Your task to perform on an android device: turn on airplane mode Image 0: 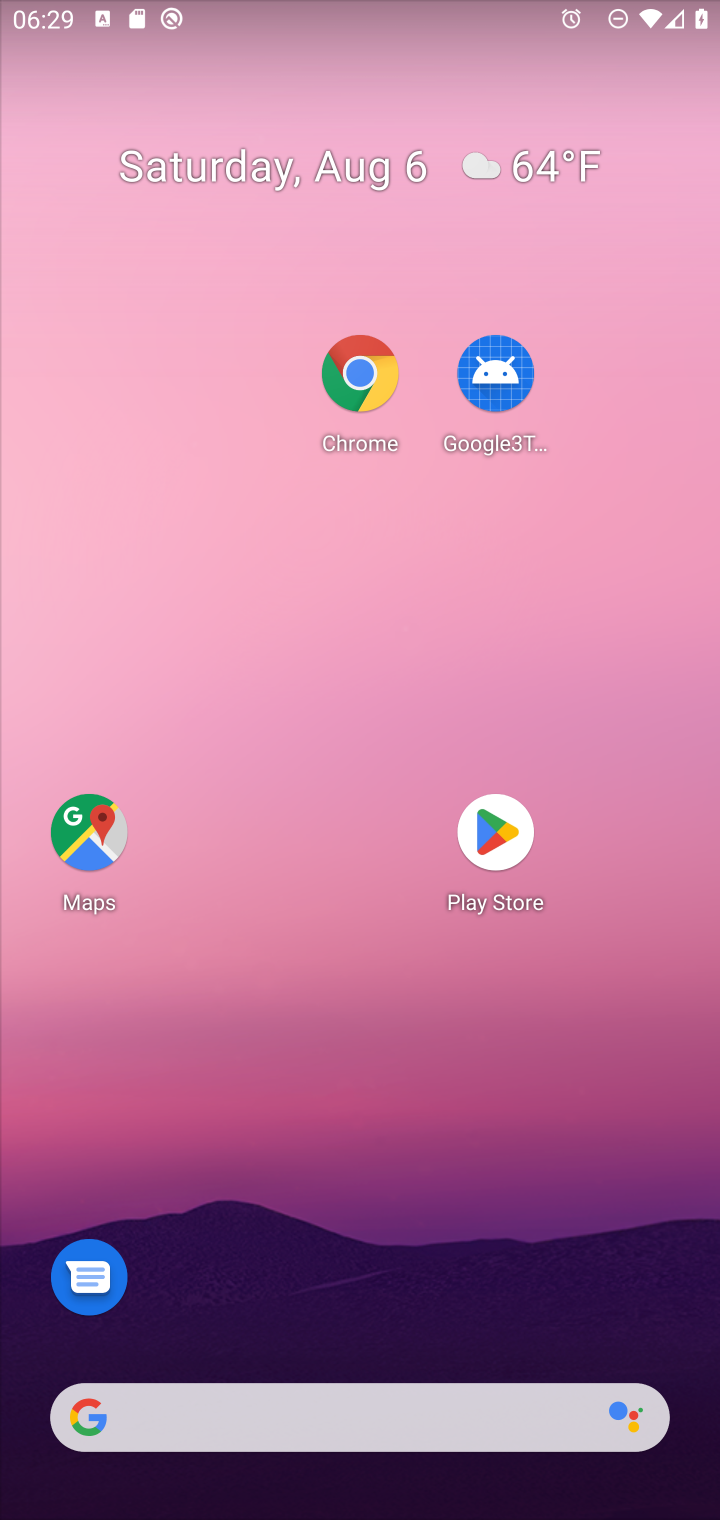
Step 0: press home button
Your task to perform on an android device: turn on airplane mode Image 1: 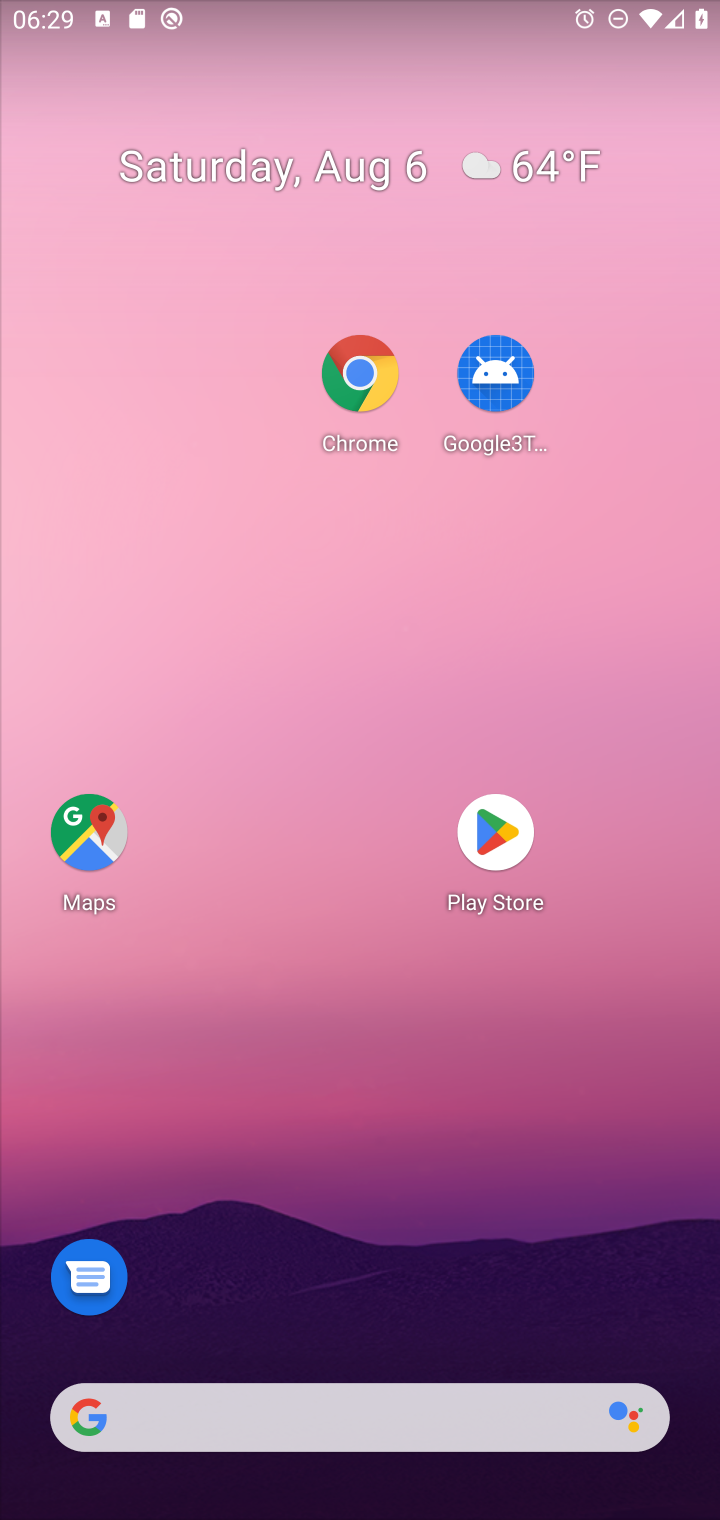
Step 1: drag from (471, 9) to (455, 1021)
Your task to perform on an android device: turn on airplane mode Image 2: 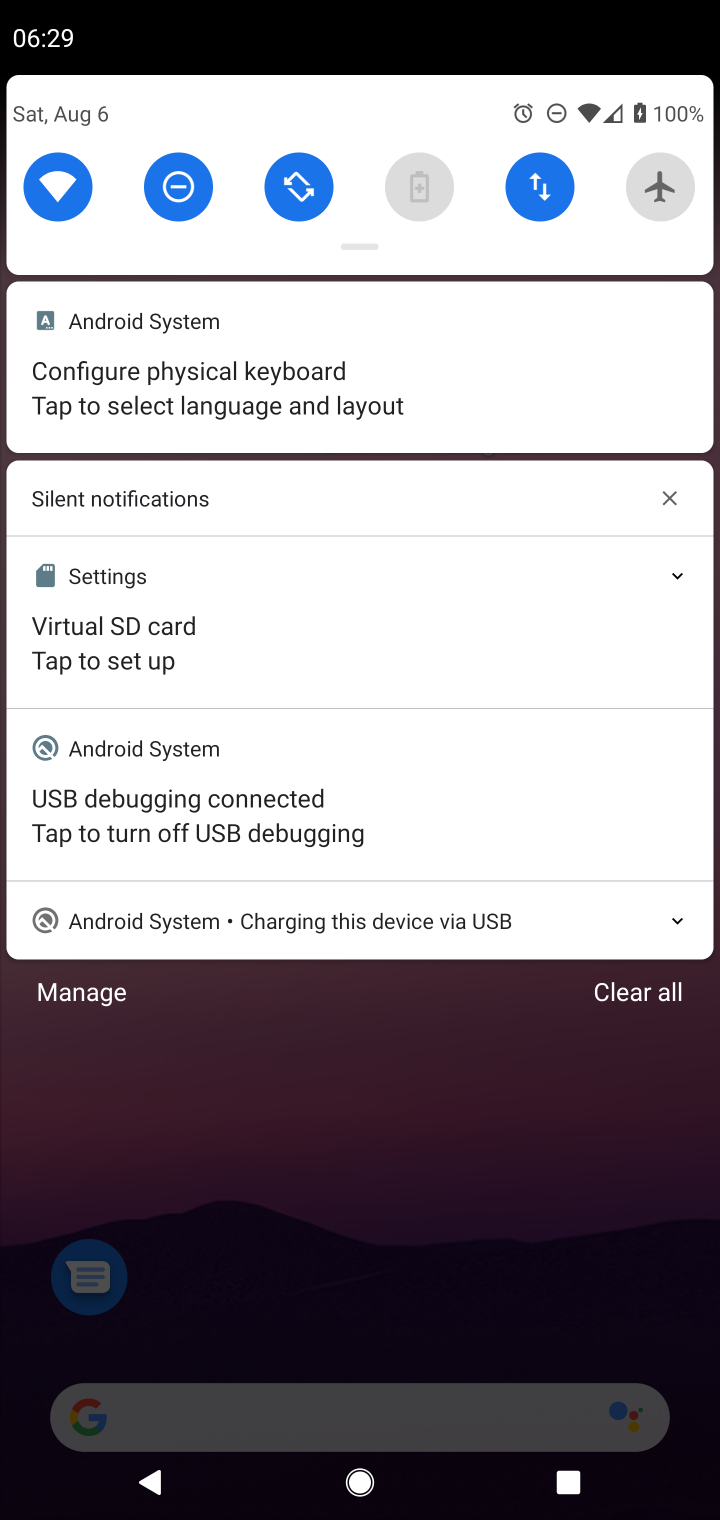
Step 2: click (653, 175)
Your task to perform on an android device: turn on airplane mode Image 3: 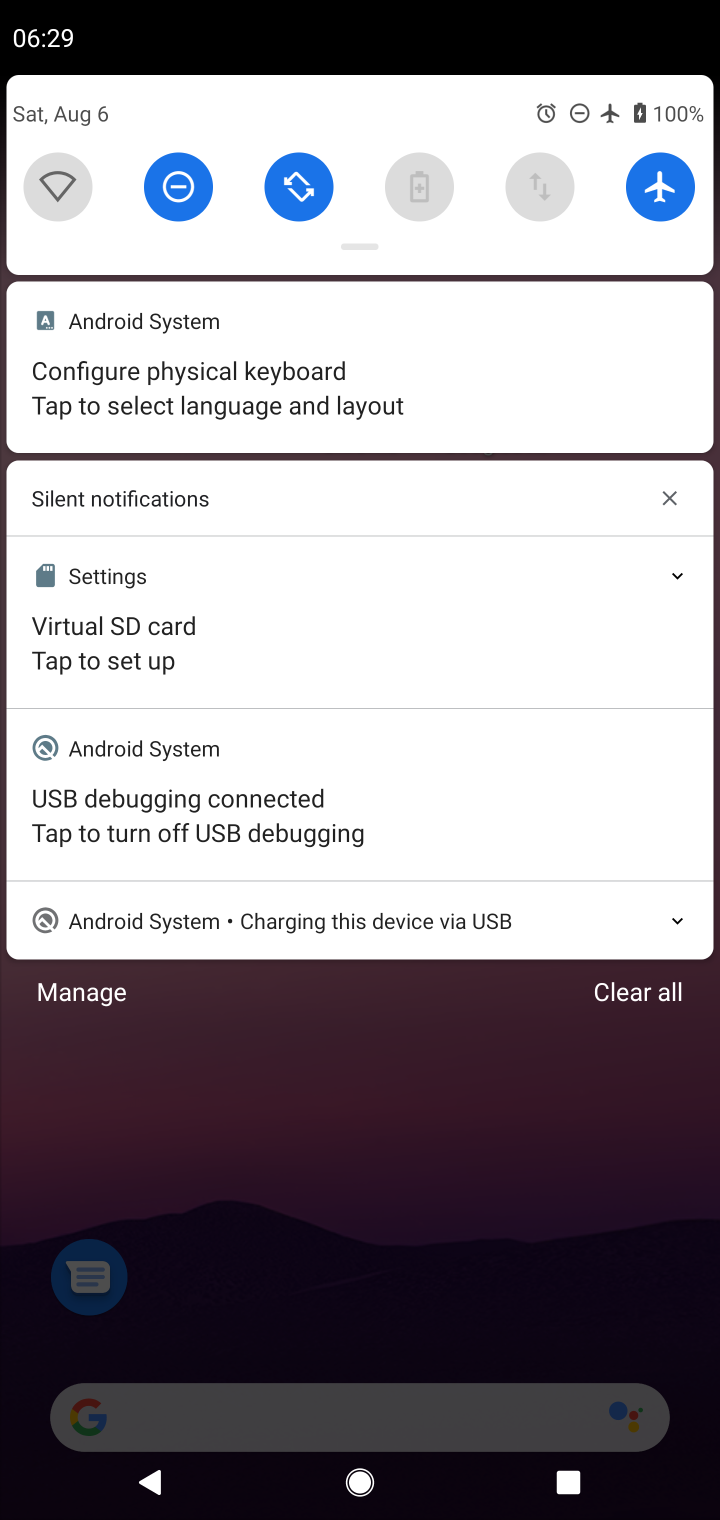
Step 3: task complete